Your task to perform on an android device: turn off airplane mode Image 0: 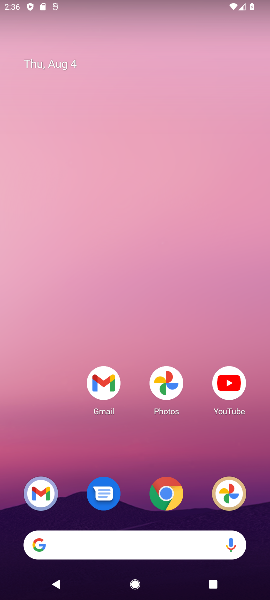
Step 0: drag from (145, 429) to (180, 230)
Your task to perform on an android device: turn off airplane mode Image 1: 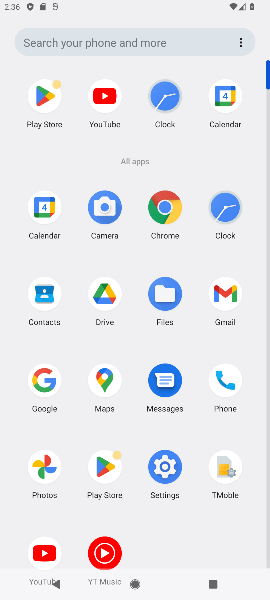
Step 1: click (162, 473)
Your task to perform on an android device: turn off airplane mode Image 2: 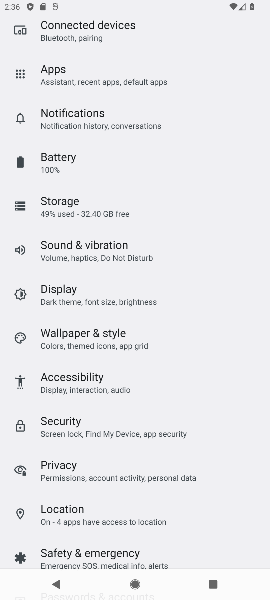
Step 2: drag from (69, 96) to (98, 348)
Your task to perform on an android device: turn off airplane mode Image 3: 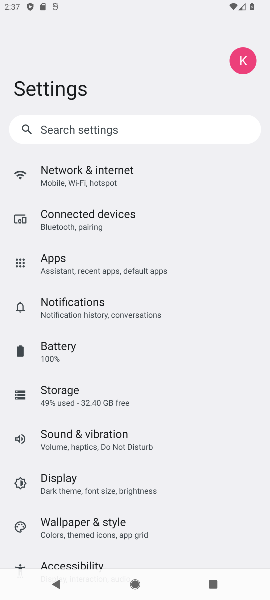
Step 3: click (63, 182)
Your task to perform on an android device: turn off airplane mode Image 4: 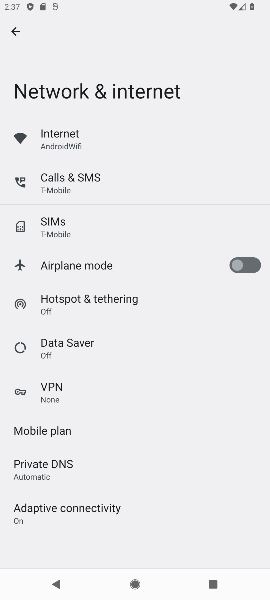
Step 4: task complete